Your task to perform on an android device: toggle notifications settings in the gmail app Image 0: 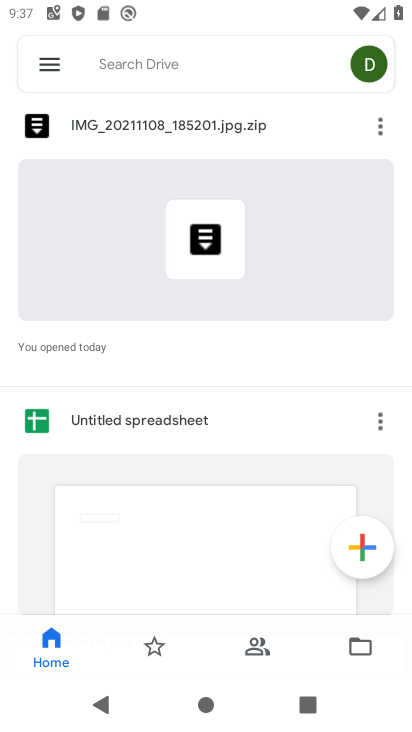
Step 0: press home button
Your task to perform on an android device: toggle notifications settings in the gmail app Image 1: 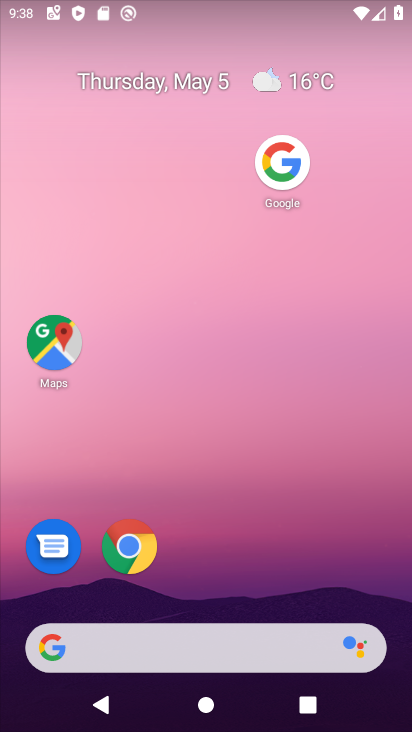
Step 1: drag from (115, 646) to (282, 82)
Your task to perform on an android device: toggle notifications settings in the gmail app Image 2: 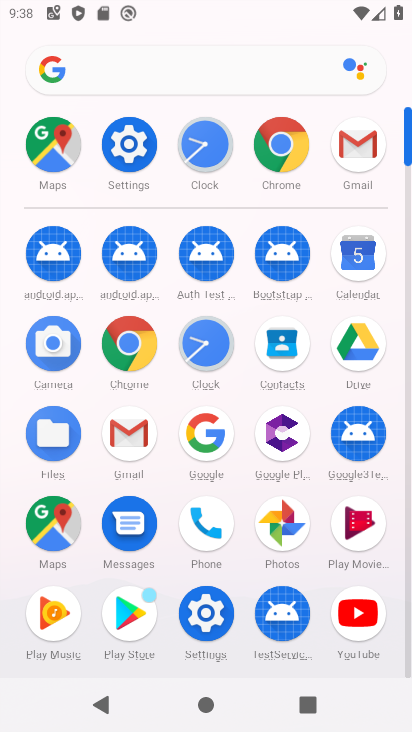
Step 2: click (353, 156)
Your task to perform on an android device: toggle notifications settings in the gmail app Image 3: 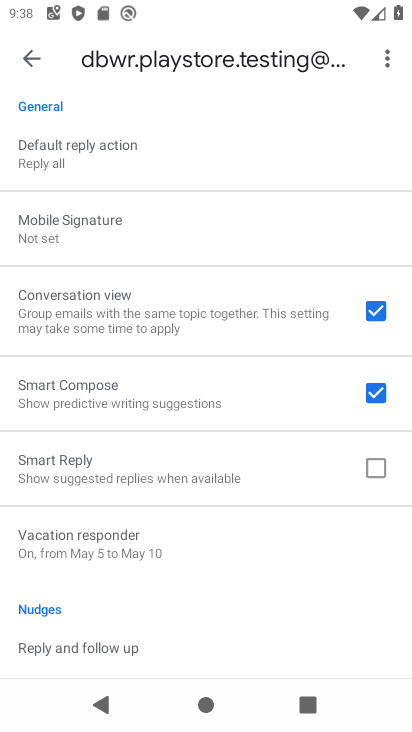
Step 3: drag from (264, 148) to (194, 628)
Your task to perform on an android device: toggle notifications settings in the gmail app Image 4: 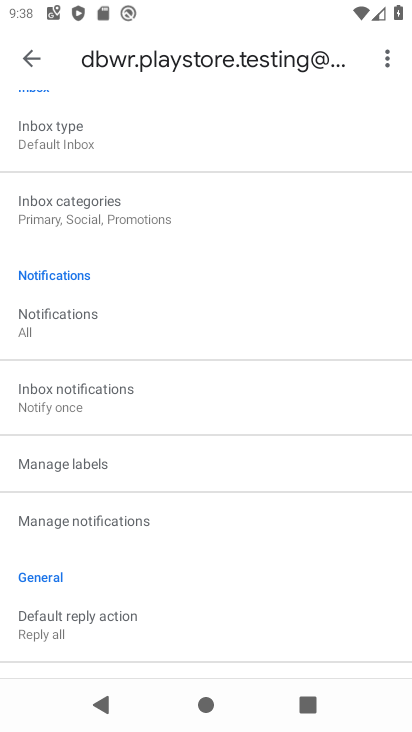
Step 4: click (79, 315)
Your task to perform on an android device: toggle notifications settings in the gmail app Image 5: 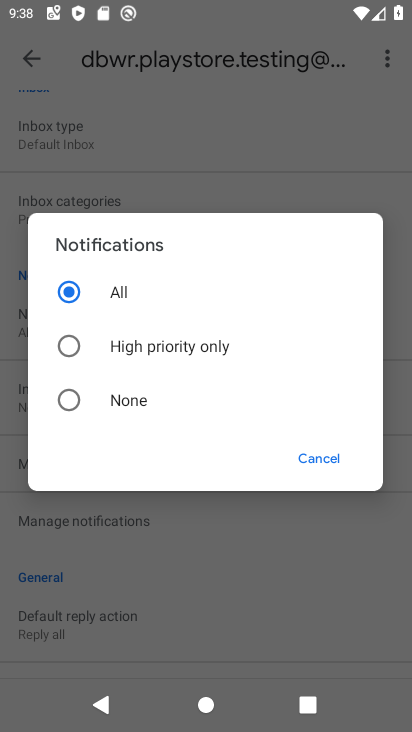
Step 5: click (72, 401)
Your task to perform on an android device: toggle notifications settings in the gmail app Image 6: 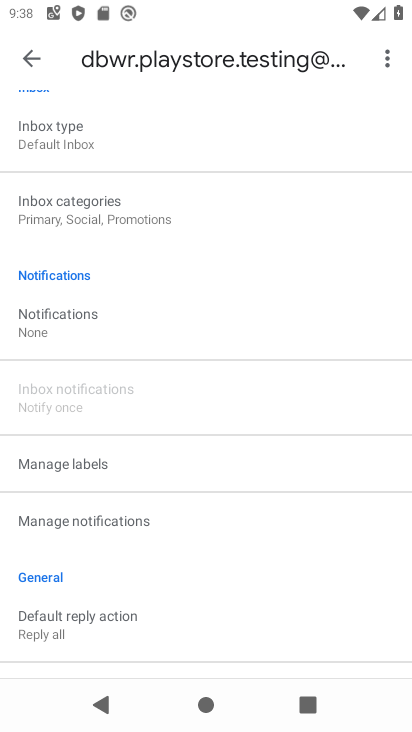
Step 6: task complete